Your task to perform on an android device: Open wifi settings Image 0: 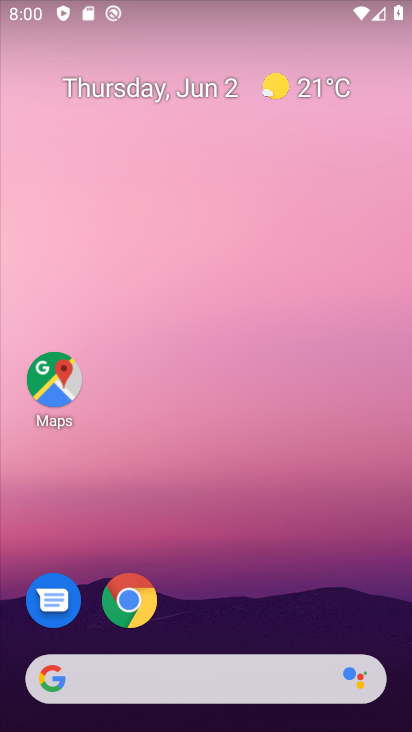
Step 0: drag from (220, 629) to (211, 156)
Your task to perform on an android device: Open wifi settings Image 1: 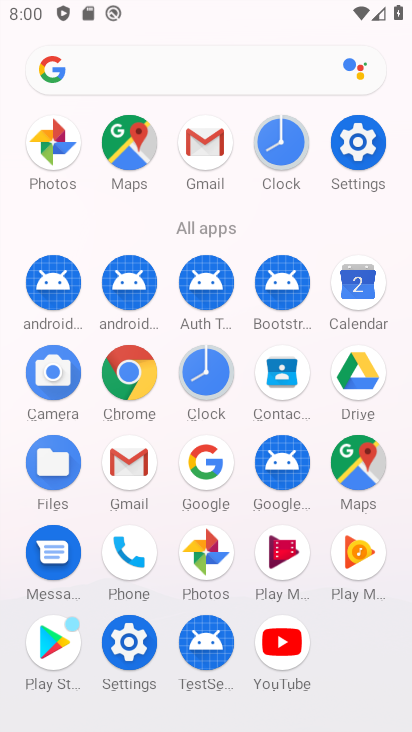
Step 1: click (343, 142)
Your task to perform on an android device: Open wifi settings Image 2: 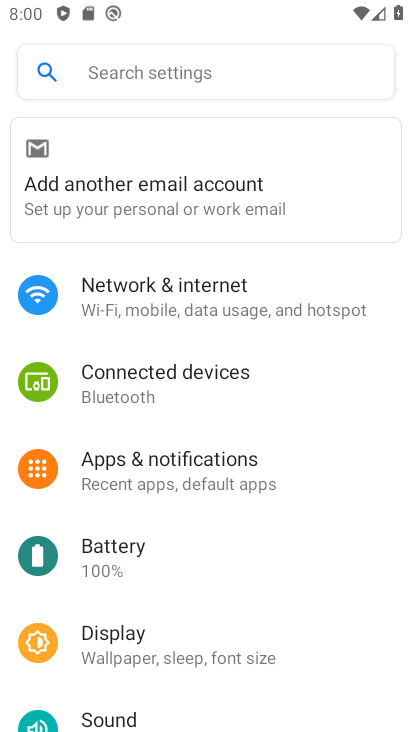
Step 2: click (198, 292)
Your task to perform on an android device: Open wifi settings Image 3: 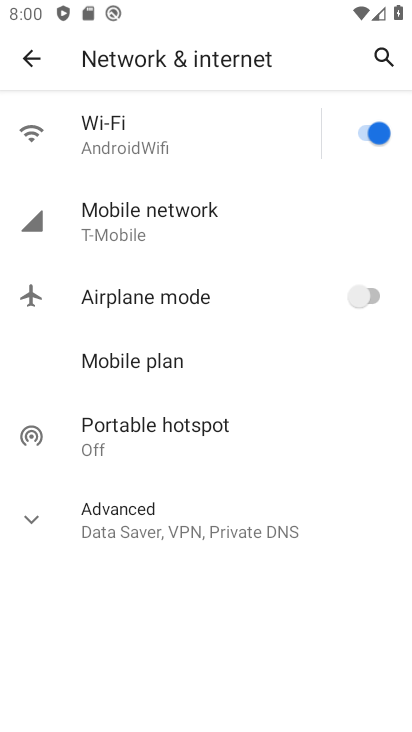
Step 3: click (152, 117)
Your task to perform on an android device: Open wifi settings Image 4: 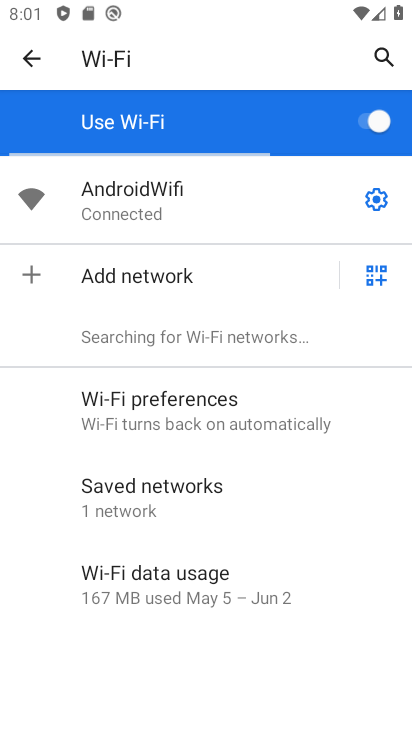
Step 4: task complete